Your task to perform on an android device: Do I have any events today? Image 0: 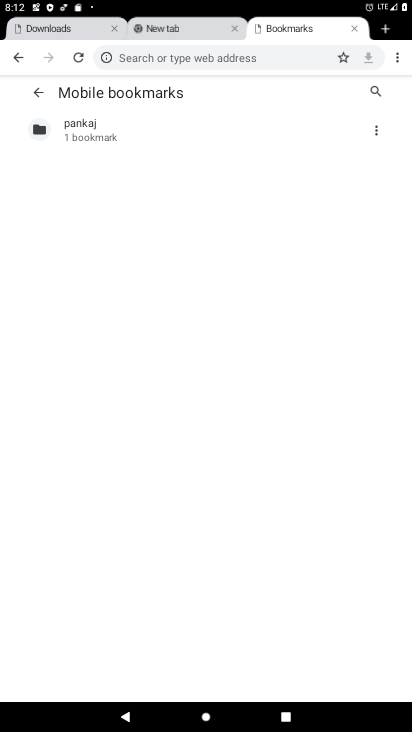
Step 0: press home button
Your task to perform on an android device: Do I have any events today? Image 1: 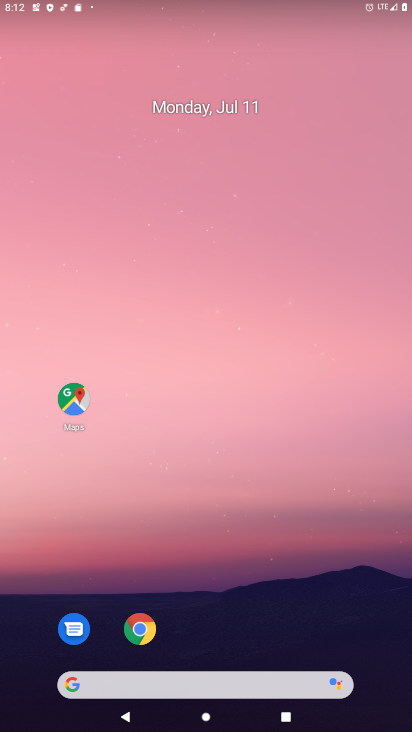
Step 1: drag from (261, 635) to (263, 53)
Your task to perform on an android device: Do I have any events today? Image 2: 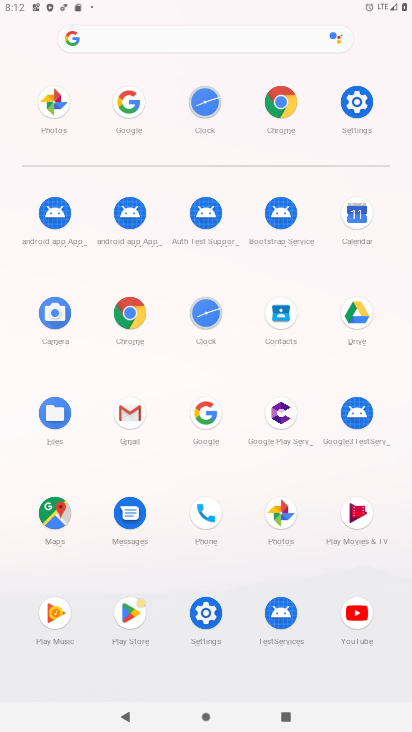
Step 2: click (354, 210)
Your task to perform on an android device: Do I have any events today? Image 3: 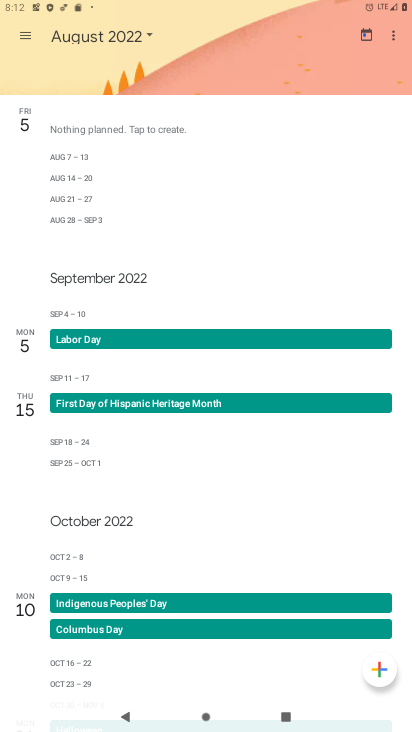
Step 3: click (135, 35)
Your task to perform on an android device: Do I have any events today? Image 4: 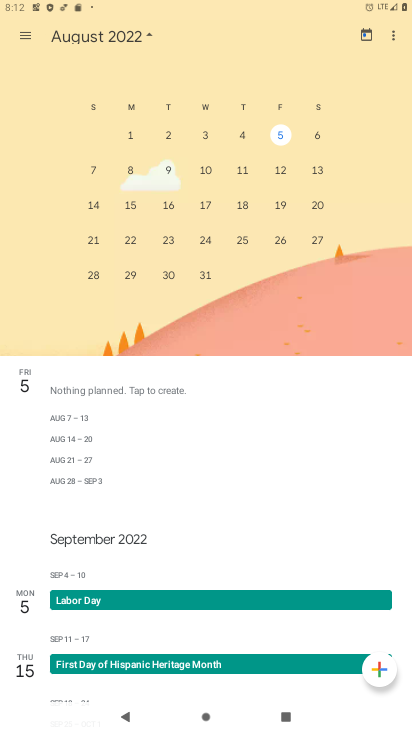
Step 4: drag from (57, 291) to (400, 271)
Your task to perform on an android device: Do I have any events today? Image 5: 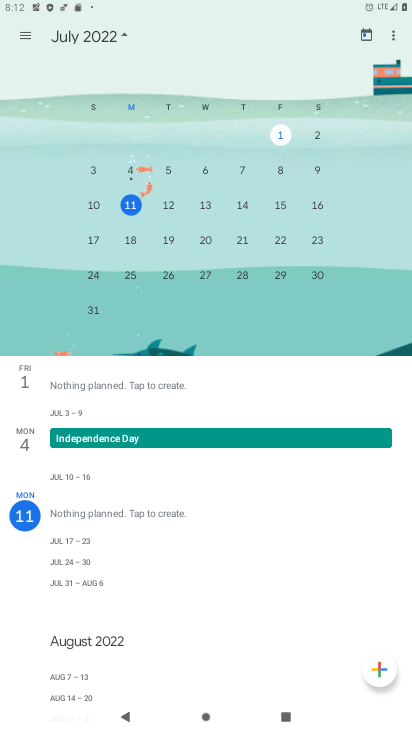
Step 5: click (135, 201)
Your task to perform on an android device: Do I have any events today? Image 6: 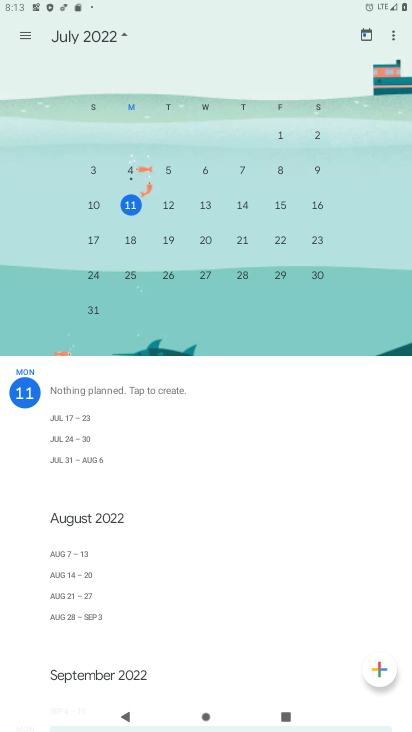
Step 6: task complete